Your task to perform on an android device: Open the Play Movies app and select the watchlist tab. Image 0: 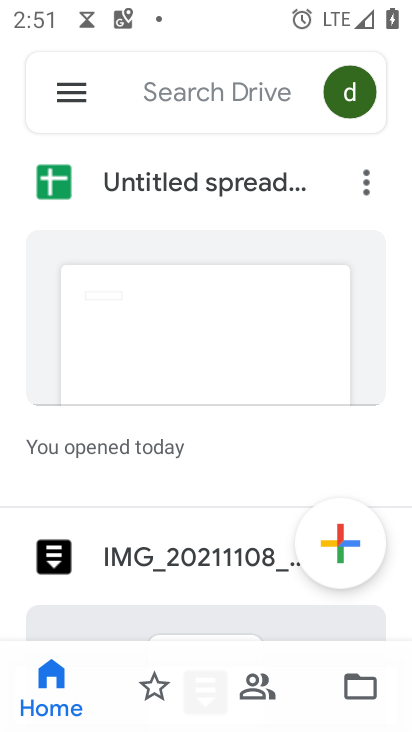
Step 0: press back button
Your task to perform on an android device: Open the Play Movies app and select the watchlist tab. Image 1: 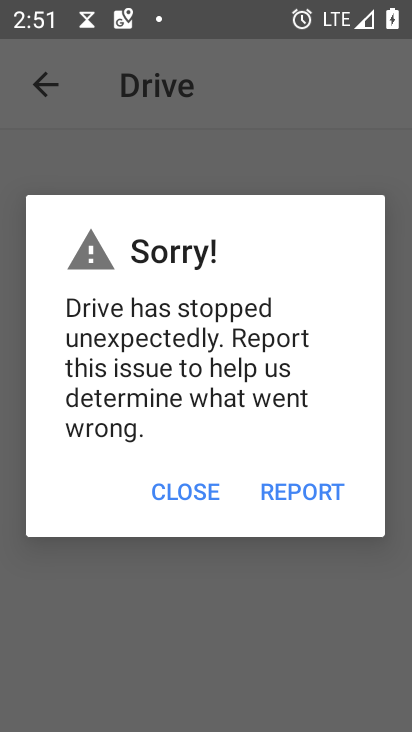
Step 1: press home button
Your task to perform on an android device: Open the Play Movies app and select the watchlist tab. Image 2: 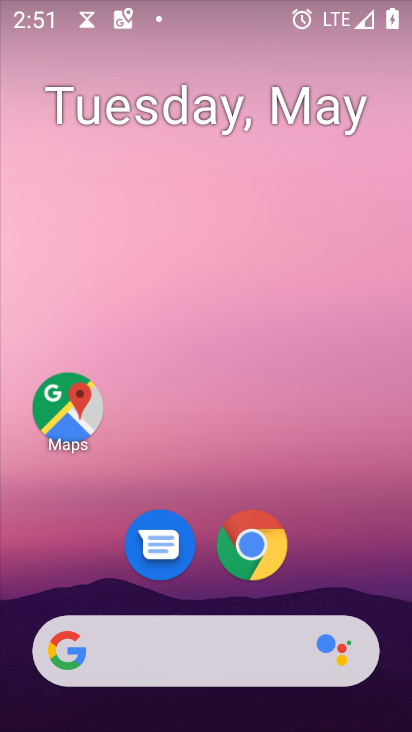
Step 2: drag from (334, 551) to (243, 46)
Your task to perform on an android device: Open the Play Movies app and select the watchlist tab. Image 3: 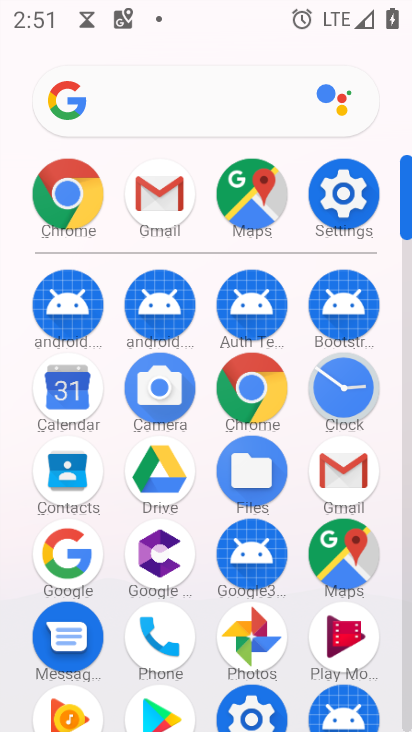
Step 3: drag from (7, 588) to (2, 199)
Your task to perform on an android device: Open the Play Movies app and select the watchlist tab. Image 4: 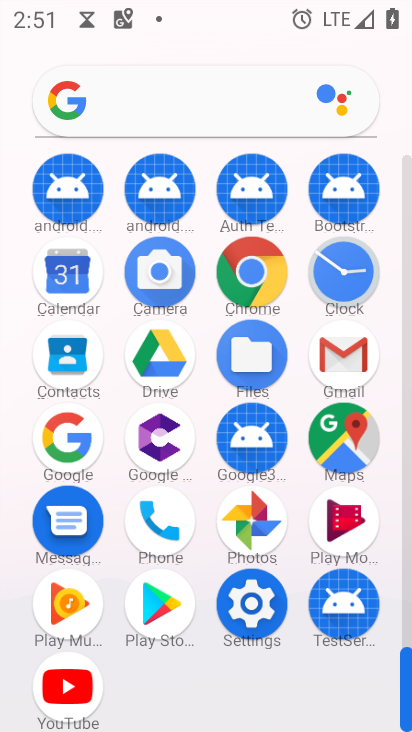
Step 4: drag from (12, 538) to (0, 241)
Your task to perform on an android device: Open the Play Movies app and select the watchlist tab. Image 5: 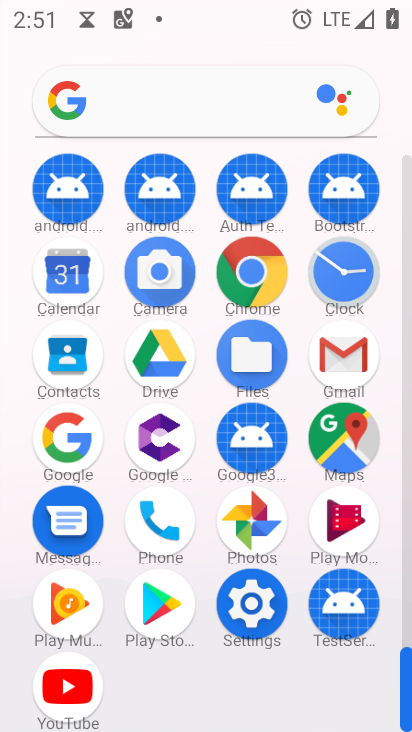
Step 5: click (335, 520)
Your task to perform on an android device: Open the Play Movies app and select the watchlist tab. Image 6: 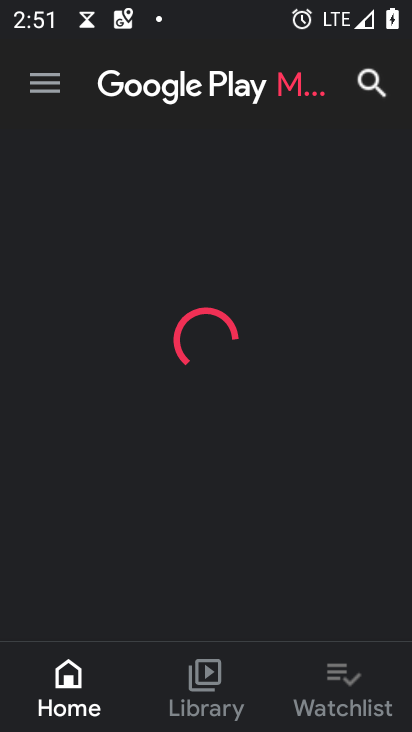
Step 6: click (333, 684)
Your task to perform on an android device: Open the Play Movies app and select the watchlist tab. Image 7: 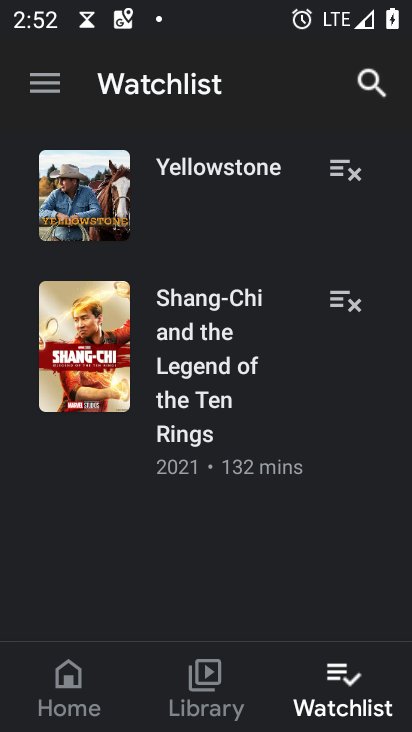
Step 7: task complete